Your task to perform on an android device: refresh tabs in the chrome app Image 0: 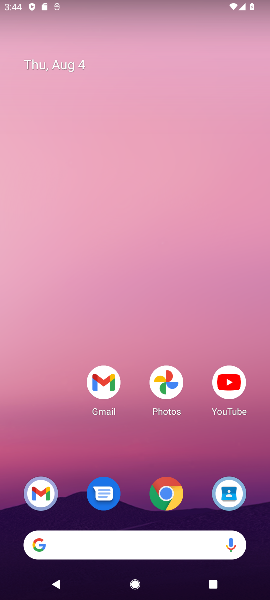
Step 0: click (167, 493)
Your task to perform on an android device: refresh tabs in the chrome app Image 1: 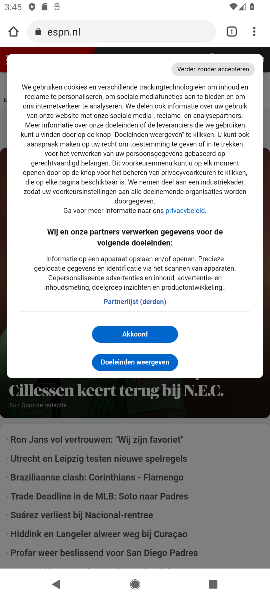
Step 1: click (235, 29)
Your task to perform on an android device: refresh tabs in the chrome app Image 2: 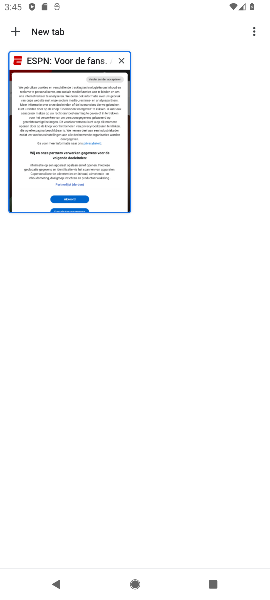
Step 2: click (258, 29)
Your task to perform on an android device: refresh tabs in the chrome app Image 3: 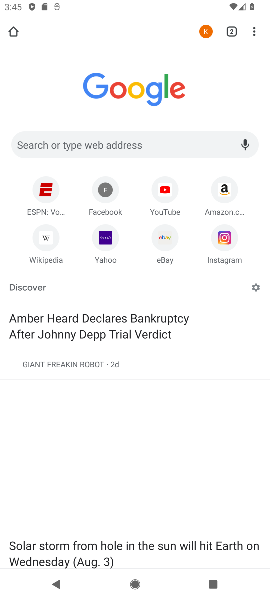
Step 3: click (256, 29)
Your task to perform on an android device: refresh tabs in the chrome app Image 4: 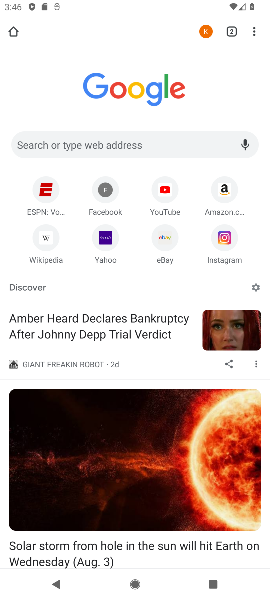
Step 4: click (253, 28)
Your task to perform on an android device: refresh tabs in the chrome app Image 5: 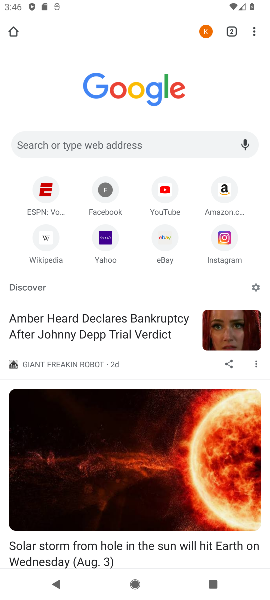
Step 5: click (253, 27)
Your task to perform on an android device: refresh tabs in the chrome app Image 6: 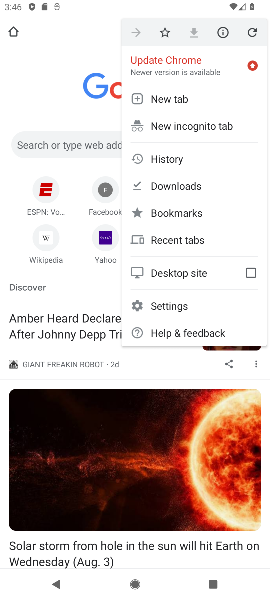
Step 6: click (256, 33)
Your task to perform on an android device: refresh tabs in the chrome app Image 7: 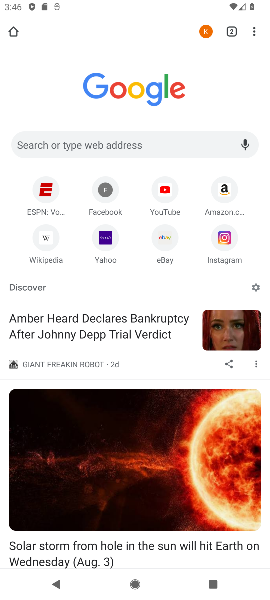
Step 7: task complete